Your task to perform on an android device: Is it going to rain tomorrow? Image 0: 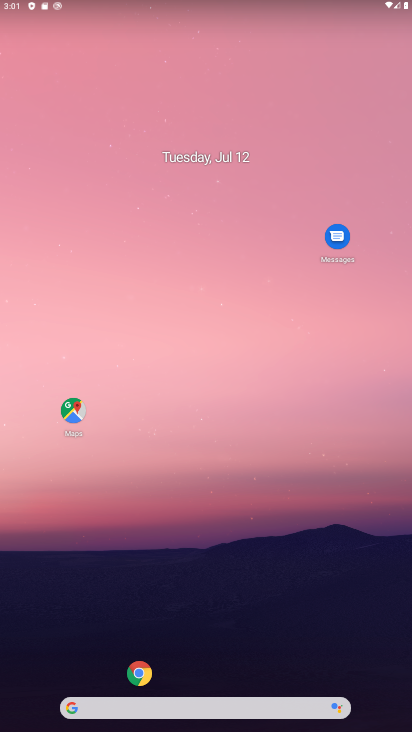
Step 0: click (163, 712)
Your task to perform on an android device: Is it going to rain tomorrow? Image 1: 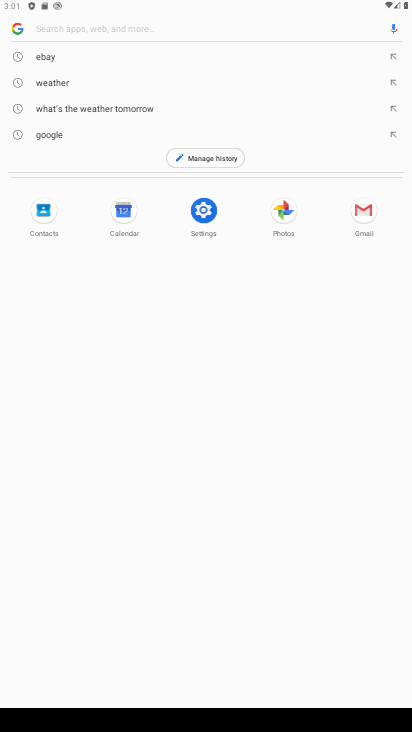
Step 1: type "Is it going to rain tomorrow?"
Your task to perform on an android device: Is it going to rain tomorrow? Image 2: 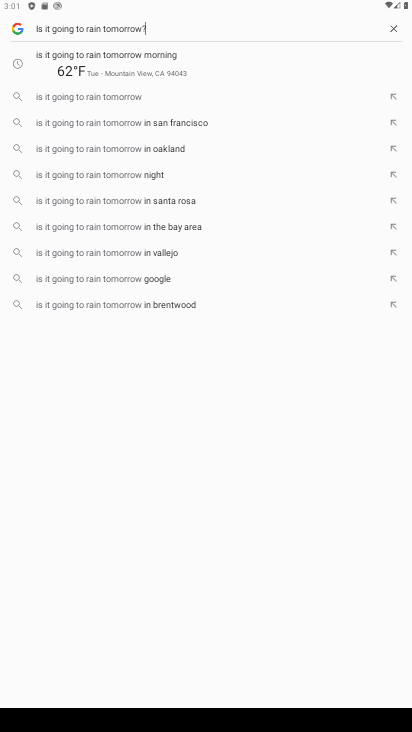
Step 2: type ""
Your task to perform on an android device: Is it going to rain tomorrow? Image 3: 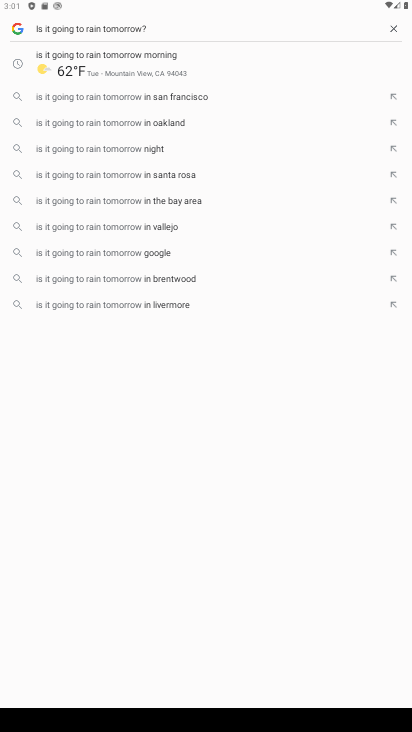
Step 3: task complete